Your task to perform on an android device: Go to Google Image 0: 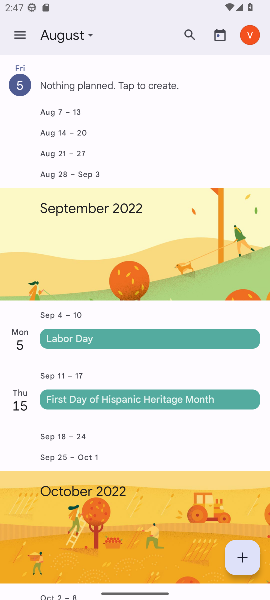
Step 0: press home button
Your task to perform on an android device: Go to Google Image 1: 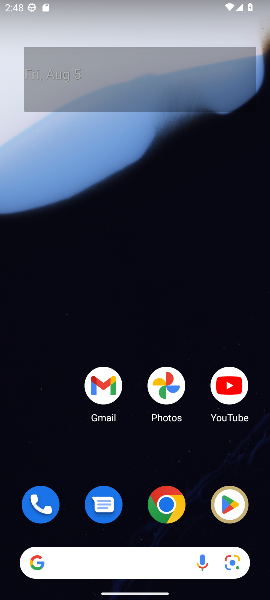
Step 1: click (90, 560)
Your task to perform on an android device: Go to Google Image 2: 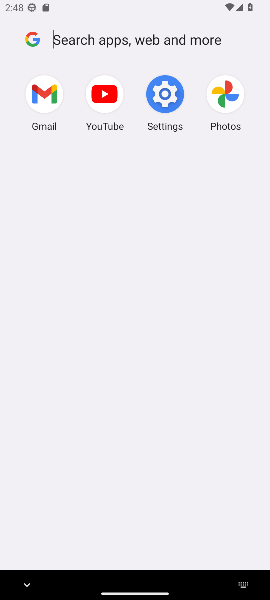
Step 2: task complete